Your task to perform on an android device: Open Google Maps and go to "Timeline" Image 0: 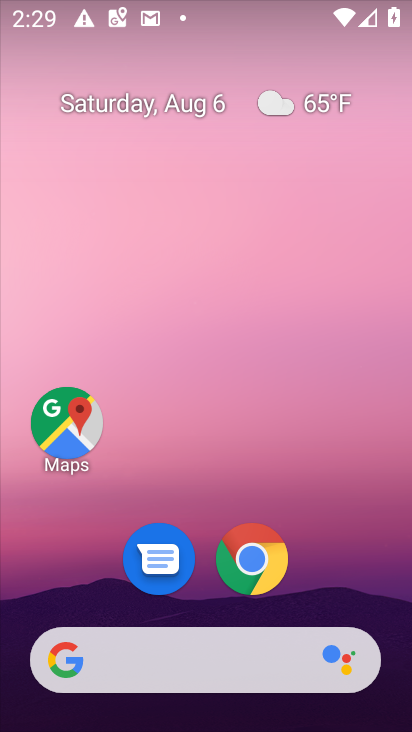
Step 0: click (75, 412)
Your task to perform on an android device: Open Google Maps and go to "Timeline" Image 1: 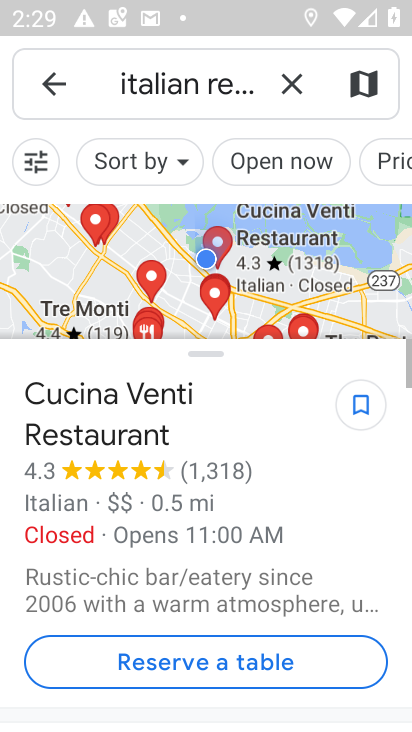
Step 1: click (27, 108)
Your task to perform on an android device: Open Google Maps and go to "Timeline" Image 2: 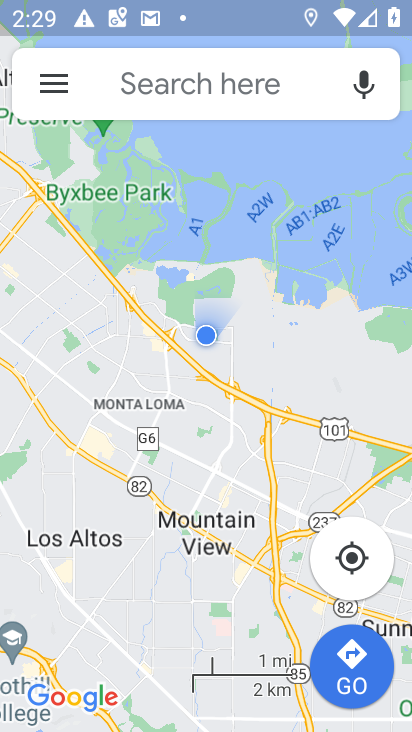
Step 2: click (52, 71)
Your task to perform on an android device: Open Google Maps and go to "Timeline" Image 3: 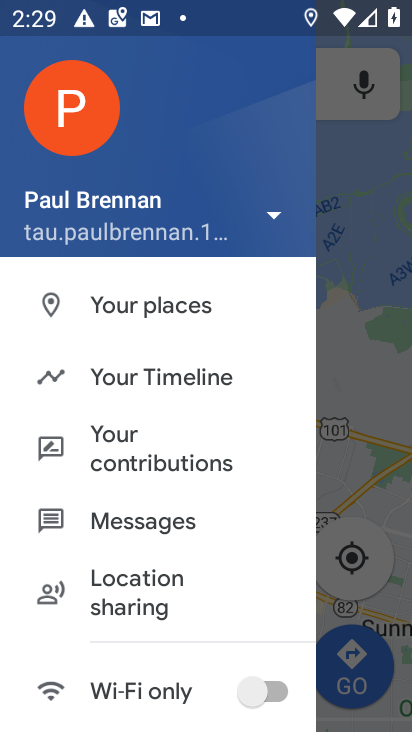
Step 3: click (142, 364)
Your task to perform on an android device: Open Google Maps and go to "Timeline" Image 4: 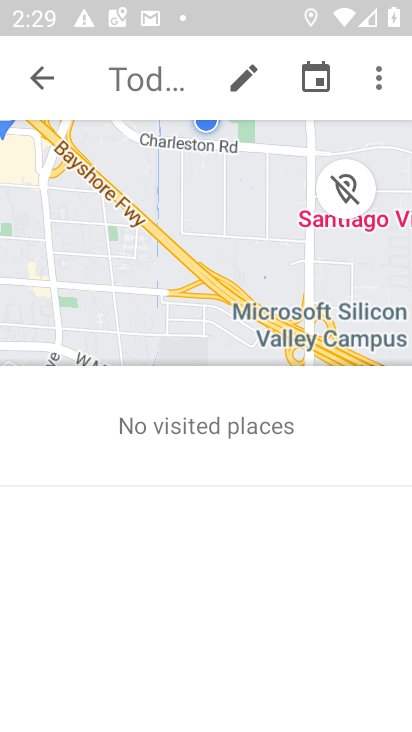
Step 4: task complete